Your task to perform on an android device: Open the calendar app, open the side menu, and click the "Day" option Image 0: 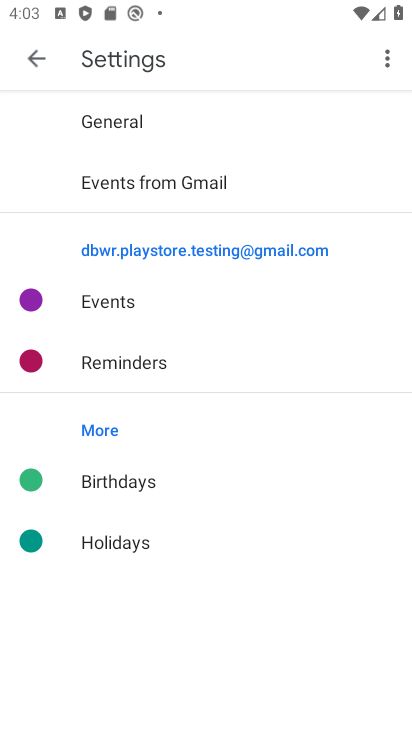
Step 0: press home button
Your task to perform on an android device: Open the calendar app, open the side menu, and click the "Day" option Image 1: 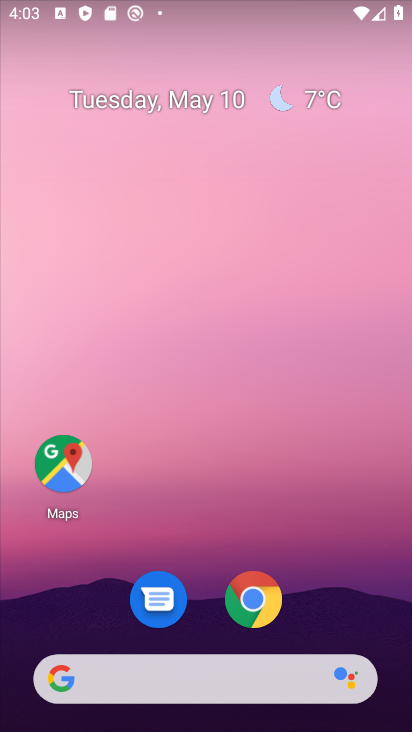
Step 1: drag from (157, 679) to (90, 0)
Your task to perform on an android device: Open the calendar app, open the side menu, and click the "Day" option Image 2: 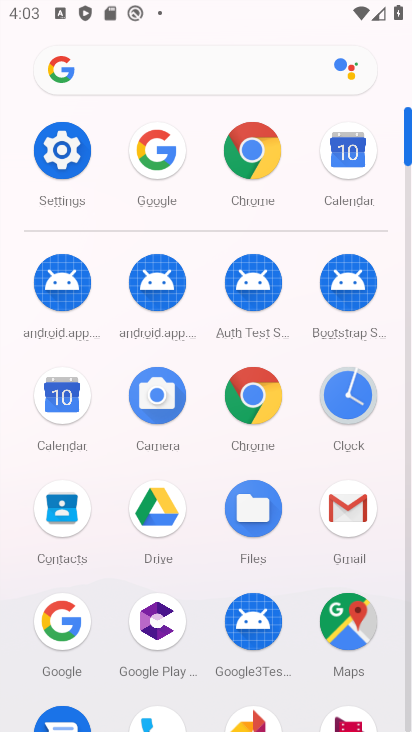
Step 2: click (73, 404)
Your task to perform on an android device: Open the calendar app, open the side menu, and click the "Day" option Image 3: 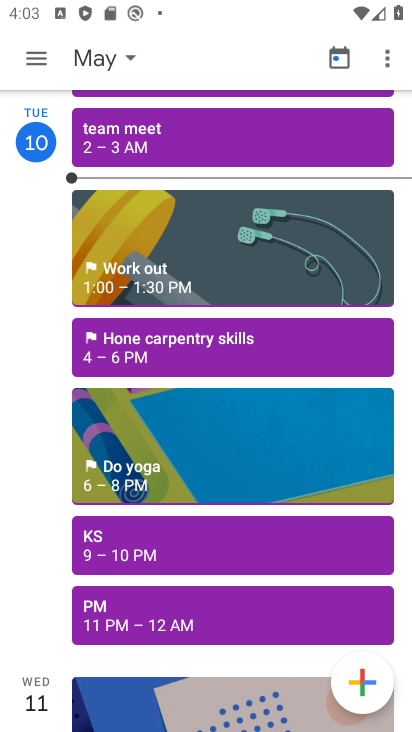
Step 3: click (34, 66)
Your task to perform on an android device: Open the calendar app, open the side menu, and click the "Day" option Image 4: 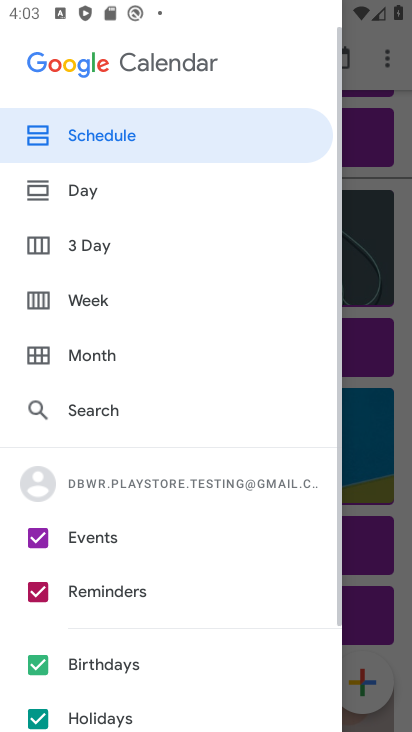
Step 4: click (139, 181)
Your task to perform on an android device: Open the calendar app, open the side menu, and click the "Day" option Image 5: 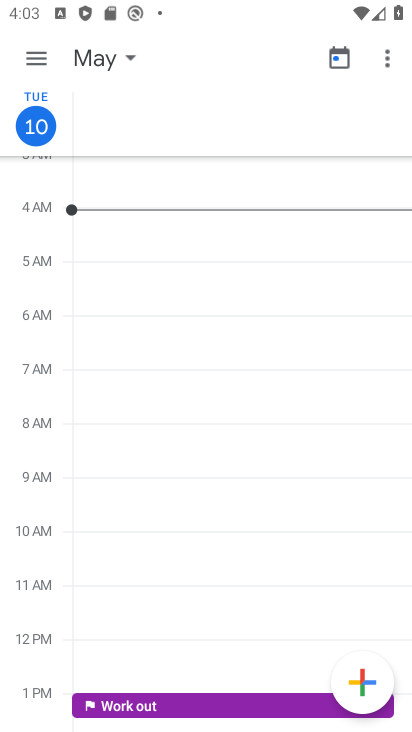
Step 5: task complete